Your task to perform on an android device: Go to Maps Image 0: 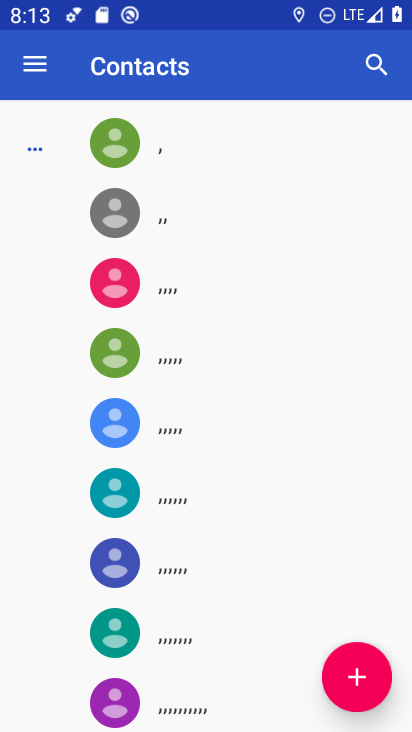
Step 0: press home button
Your task to perform on an android device: Go to Maps Image 1: 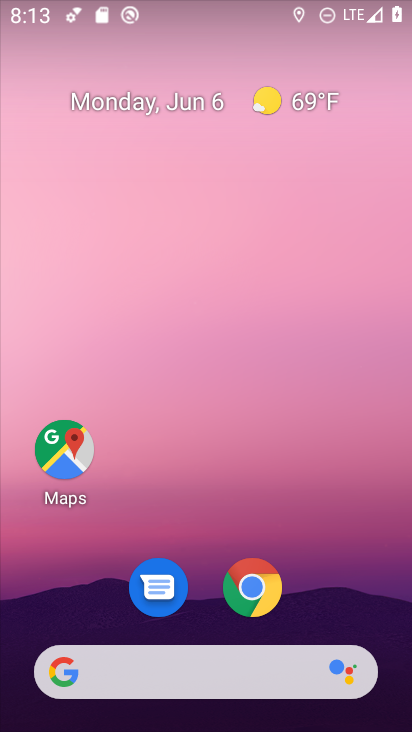
Step 1: click (63, 460)
Your task to perform on an android device: Go to Maps Image 2: 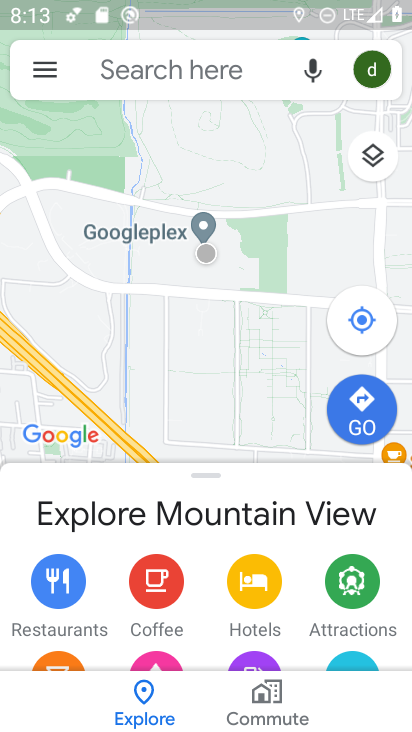
Step 2: task complete